Your task to perform on an android device: find photos in the google photos app Image 0: 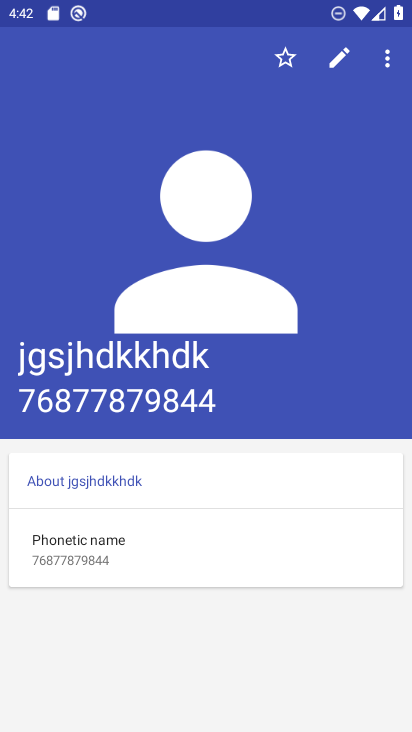
Step 0: press back button
Your task to perform on an android device: find photos in the google photos app Image 1: 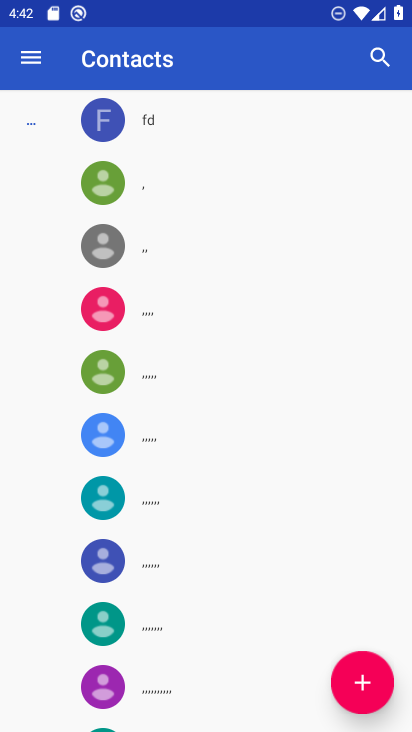
Step 1: press back button
Your task to perform on an android device: find photos in the google photos app Image 2: 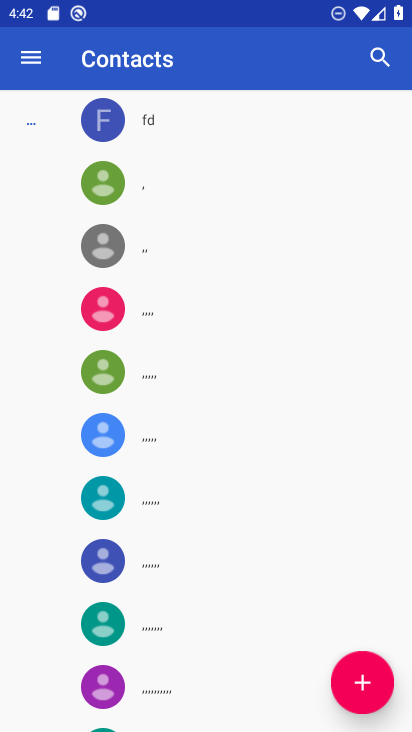
Step 2: press back button
Your task to perform on an android device: find photos in the google photos app Image 3: 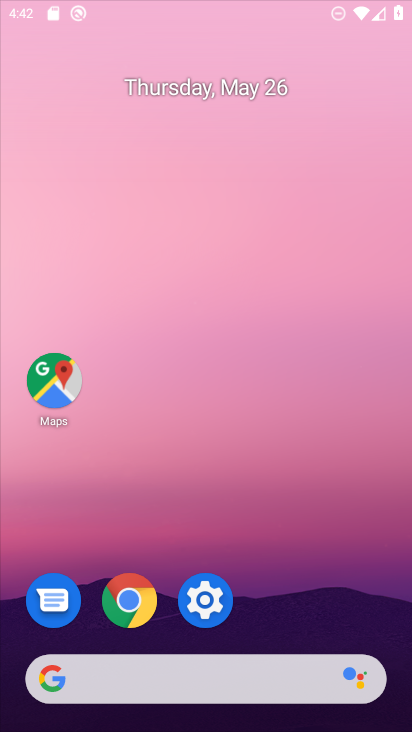
Step 3: press back button
Your task to perform on an android device: find photos in the google photos app Image 4: 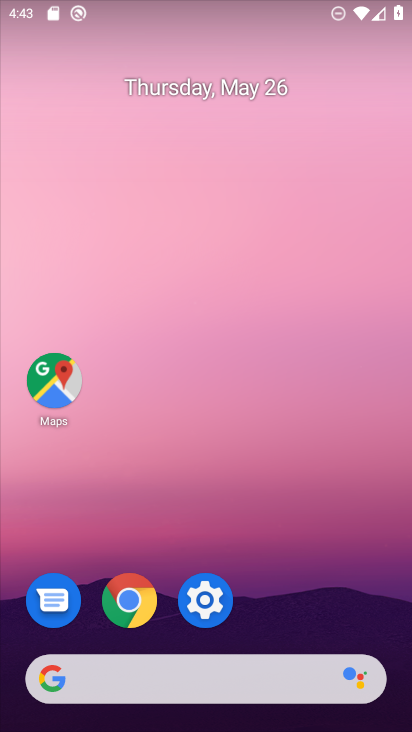
Step 4: drag from (260, 582) to (142, 194)
Your task to perform on an android device: find photos in the google photos app Image 5: 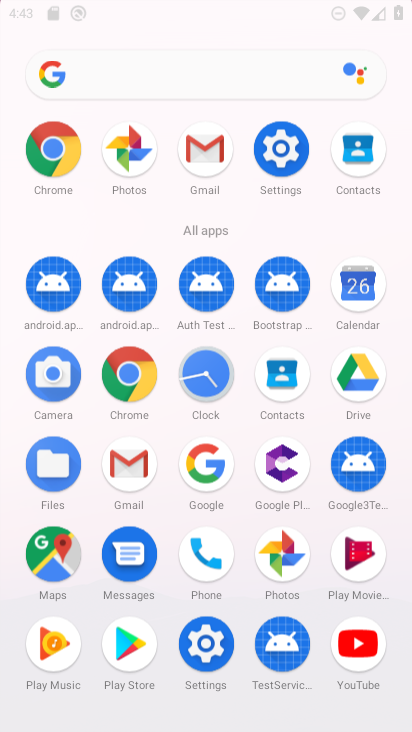
Step 5: drag from (184, 398) to (153, 124)
Your task to perform on an android device: find photos in the google photos app Image 6: 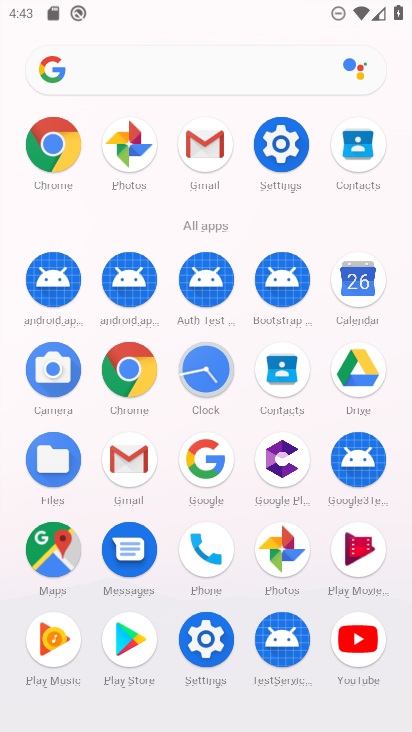
Step 6: drag from (236, 235) to (230, 189)
Your task to perform on an android device: find photos in the google photos app Image 7: 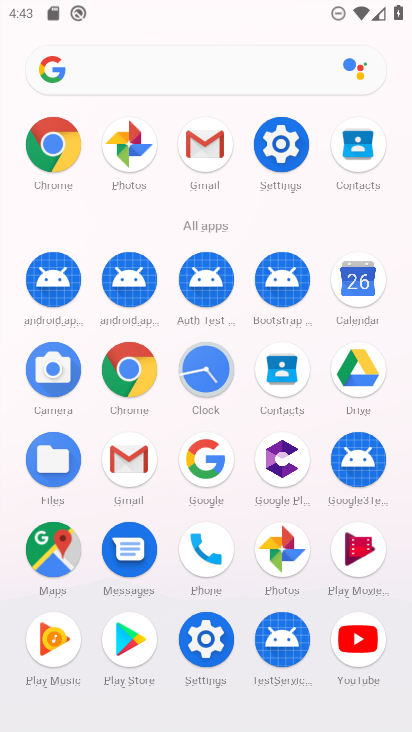
Step 7: click (284, 544)
Your task to perform on an android device: find photos in the google photos app Image 8: 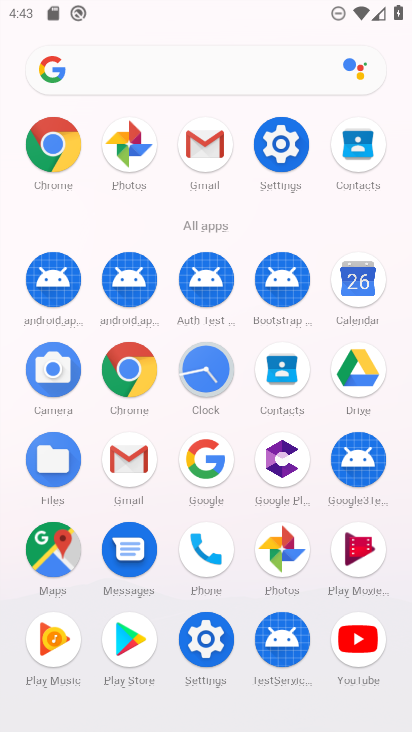
Step 8: click (284, 544)
Your task to perform on an android device: find photos in the google photos app Image 9: 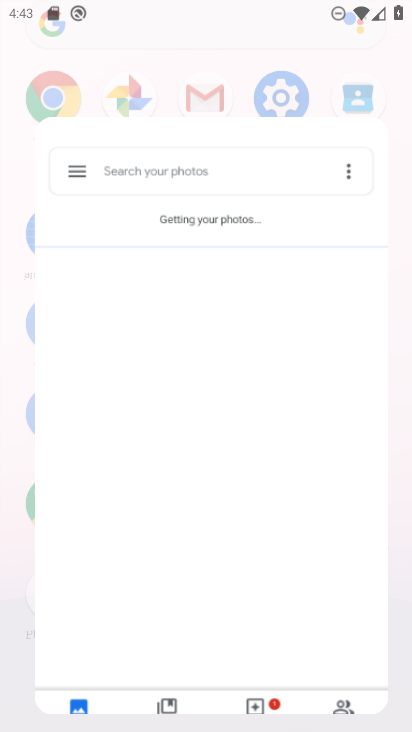
Step 9: click (284, 544)
Your task to perform on an android device: find photos in the google photos app Image 10: 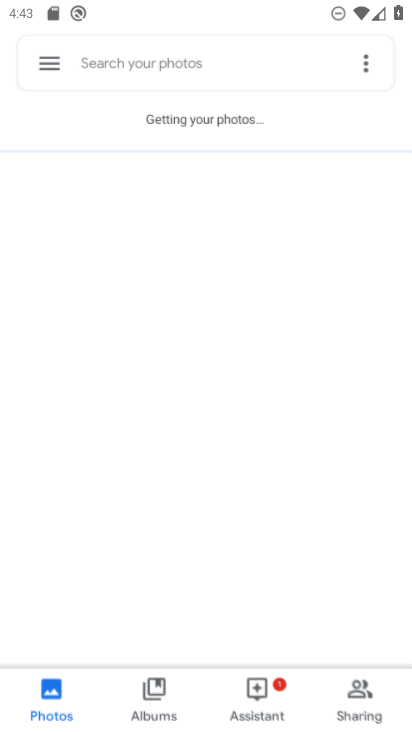
Step 10: click (284, 545)
Your task to perform on an android device: find photos in the google photos app Image 11: 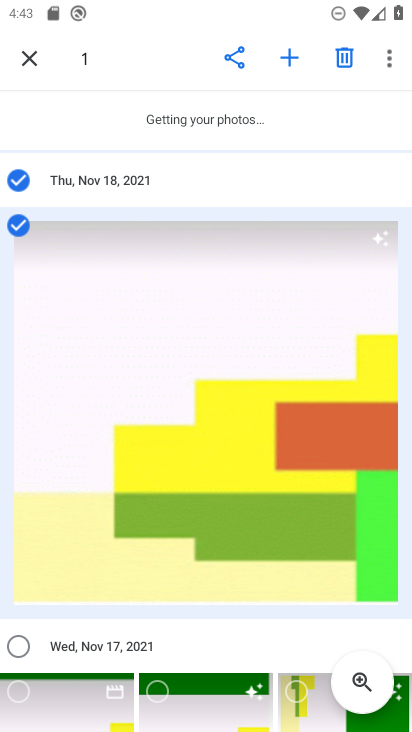
Step 11: task complete